Your task to perform on an android device: Do I have any events this weekend? Image 0: 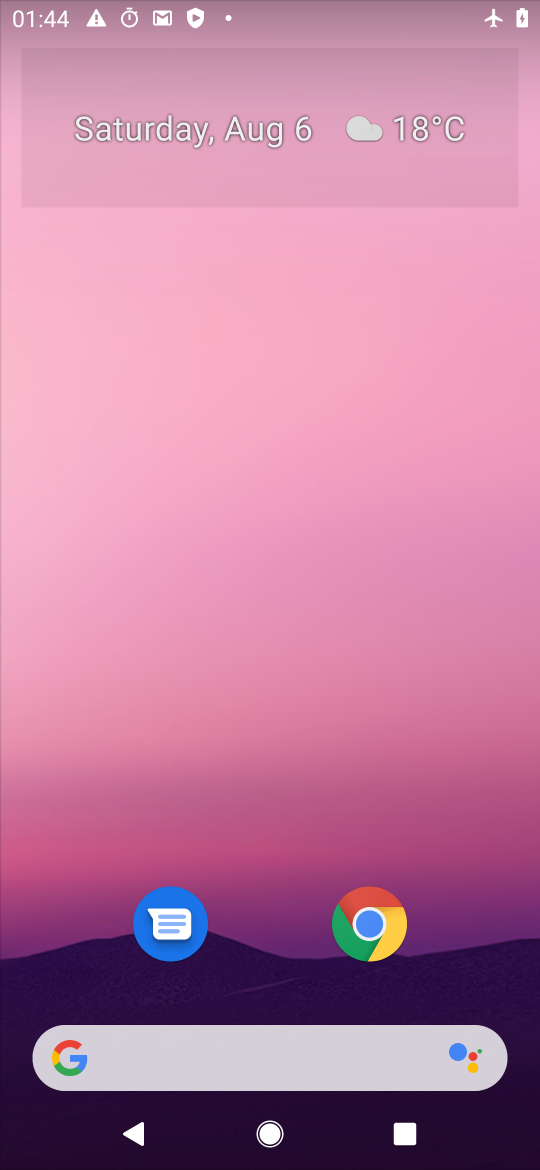
Step 0: drag from (284, 1052) to (198, 97)
Your task to perform on an android device: Do I have any events this weekend? Image 1: 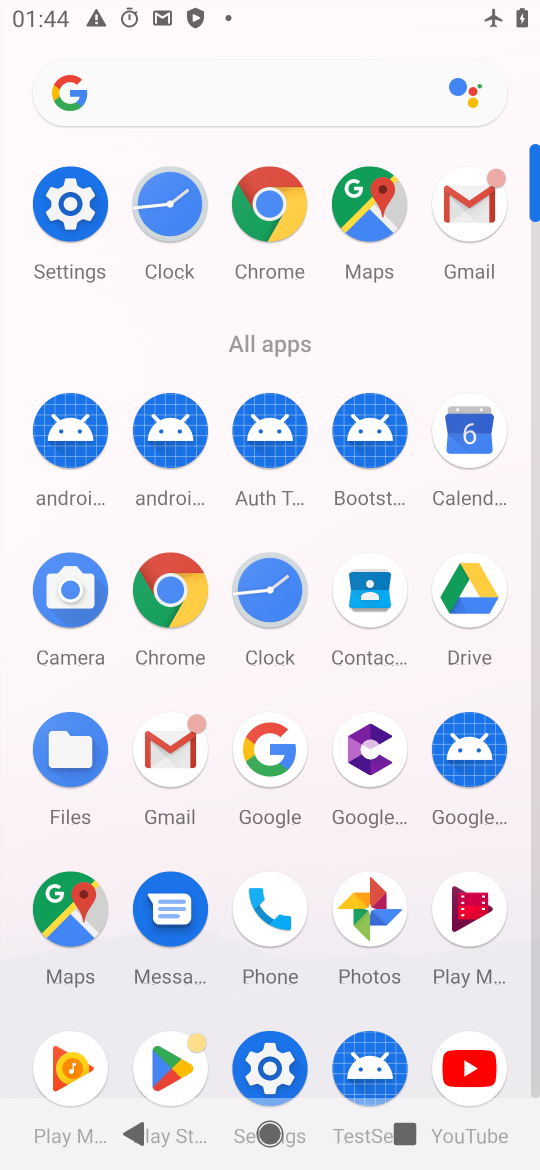
Step 1: click (486, 451)
Your task to perform on an android device: Do I have any events this weekend? Image 2: 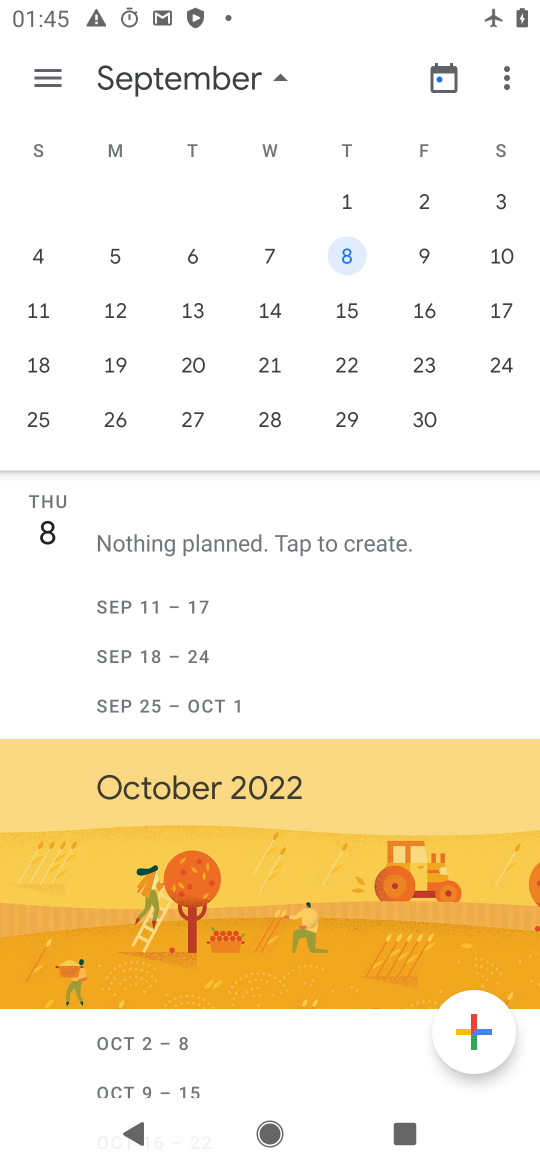
Step 2: drag from (176, 290) to (469, 337)
Your task to perform on an android device: Do I have any events this weekend? Image 3: 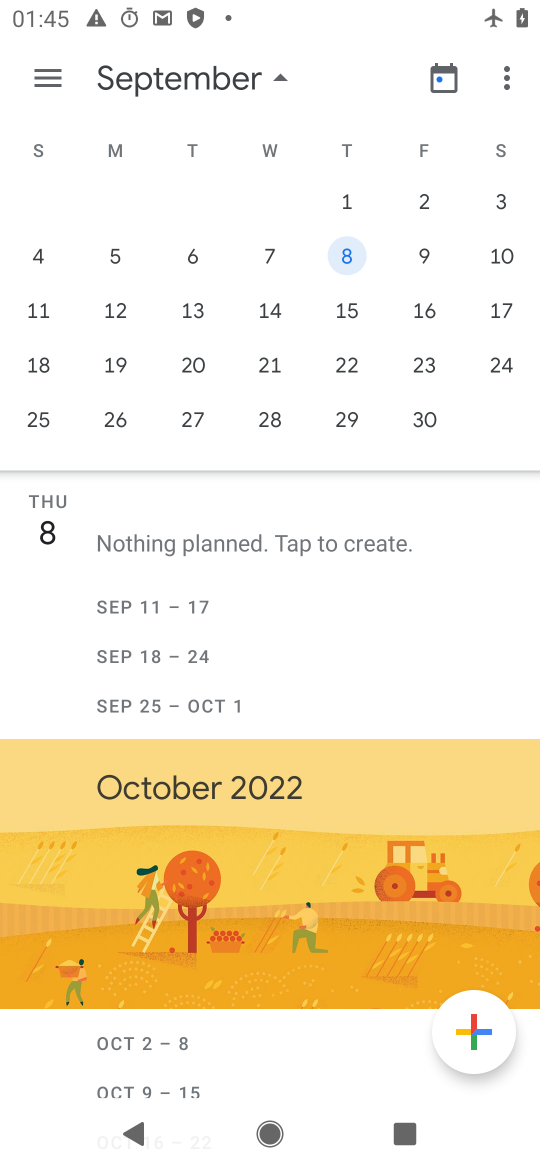
Step 3: drag from (50, 186) to (525, 245)
Your task to perform on an android device: Do I have any events this weekend? Image 4: 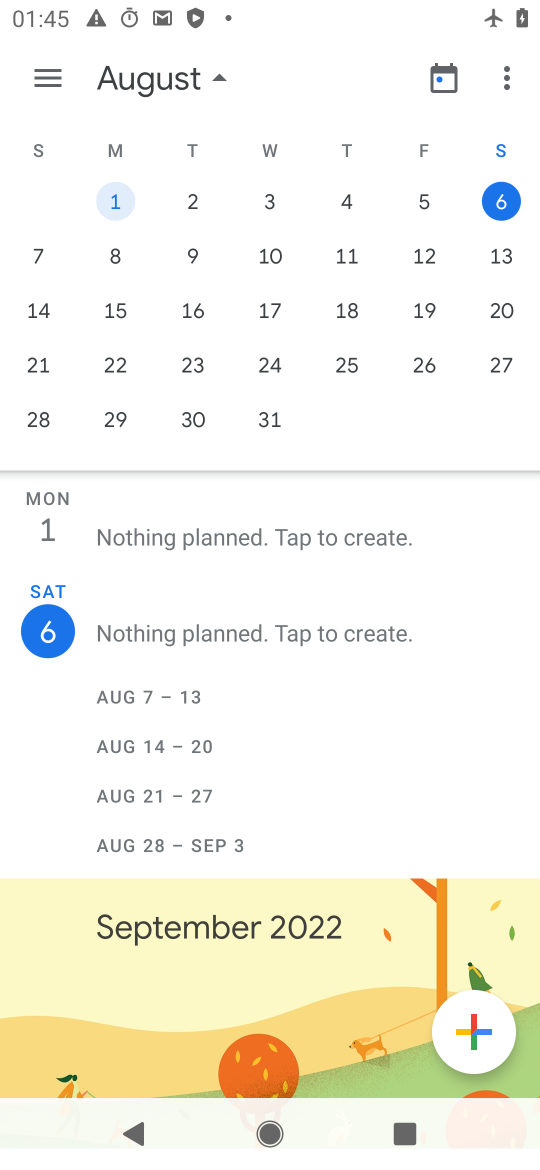
Step 4: click (183, 362)
Your task to perform on an android device: Do I have any events this weekend? Image 5: 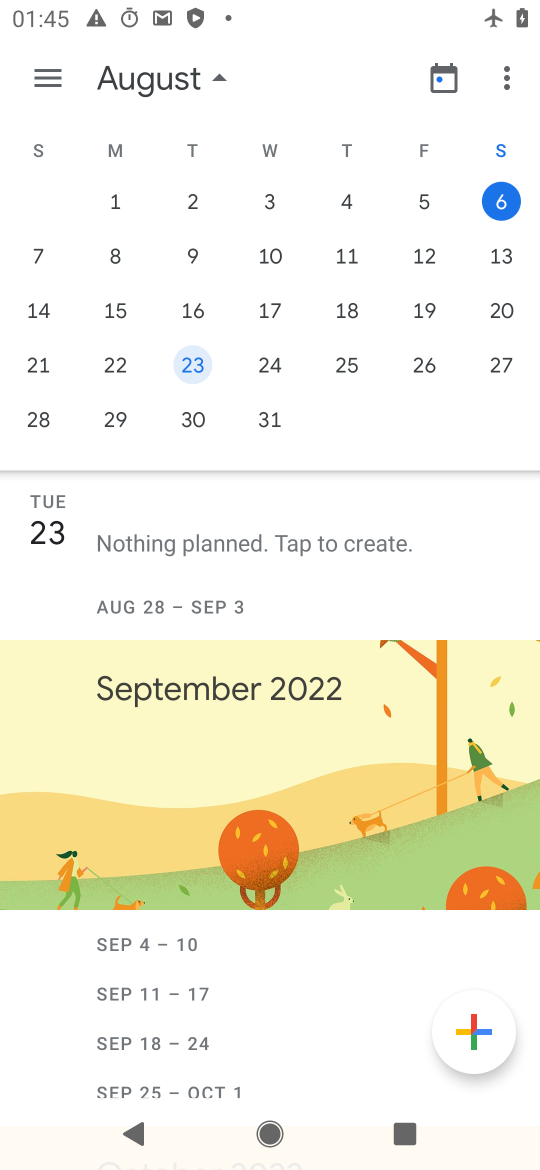
Step 5: task complete